Your task to perform on an android device: Do I have any events tomorrow? Image 0: 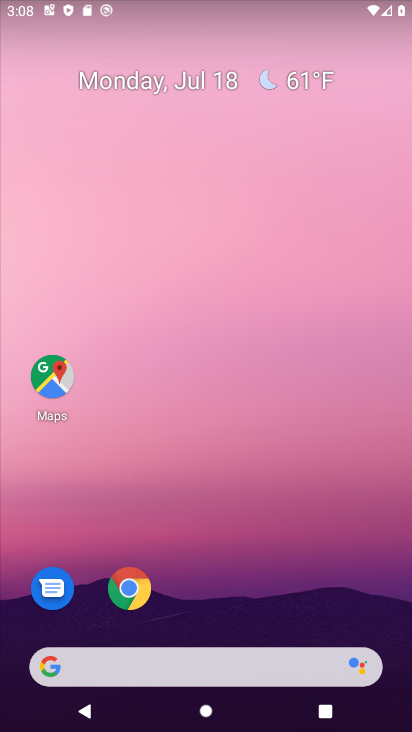
Step 0: drag from (243, 628) to (229, 99)
Your task to perform on an android device: Do I have any events tomorrow? Image 1: 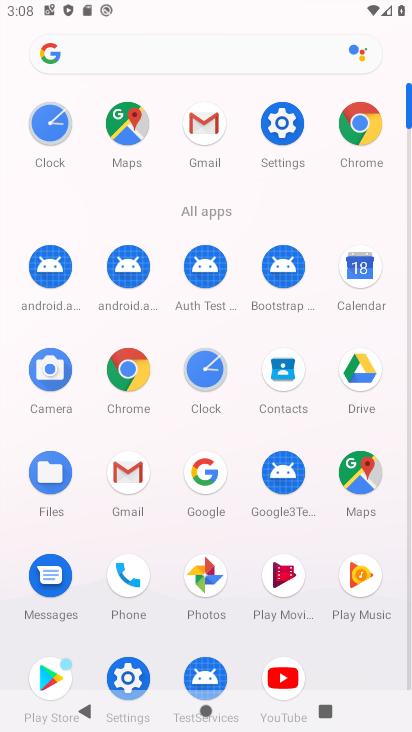
Step 1: click (369, 292)
Your task to perform on an android device: Do I have any events tomorrow? Image 2: 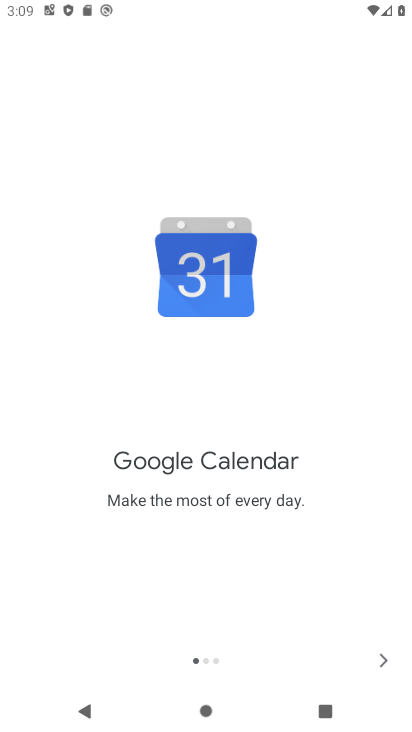
Step 2: click (376, 671)
Your task to perform on an android device: Do I have any events tomorrow? Image 3: 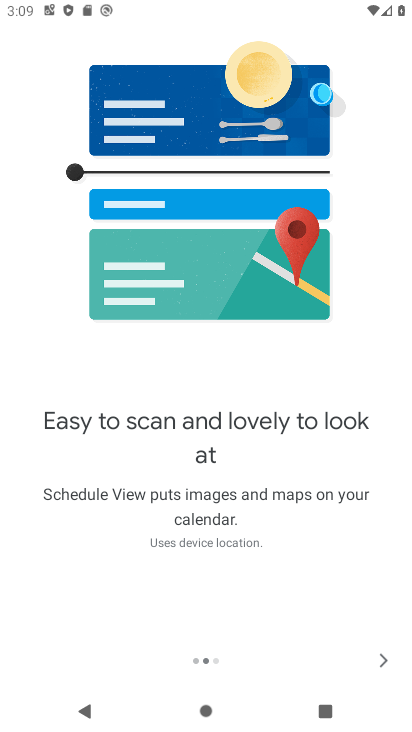
Step 3: click (376, 671)
Your task to perform on an android device: Do I have any events tomorrow? Image 4: 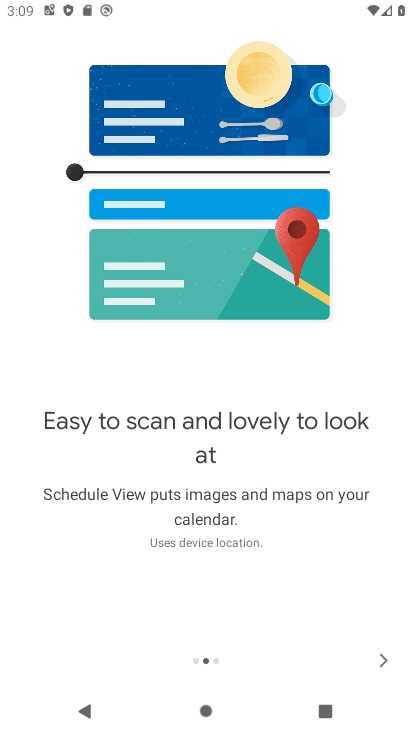
Step 4: click (376, 671)
Your task to perform on an android device: Do I have any events tomorrow? Image 5: 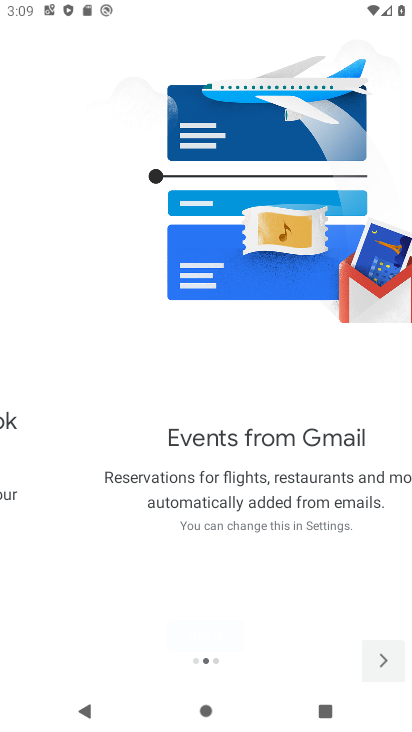
Step 5: click (376, 671)
Your task to perform on an android device: Do I have any events tomorrow? Image 6: 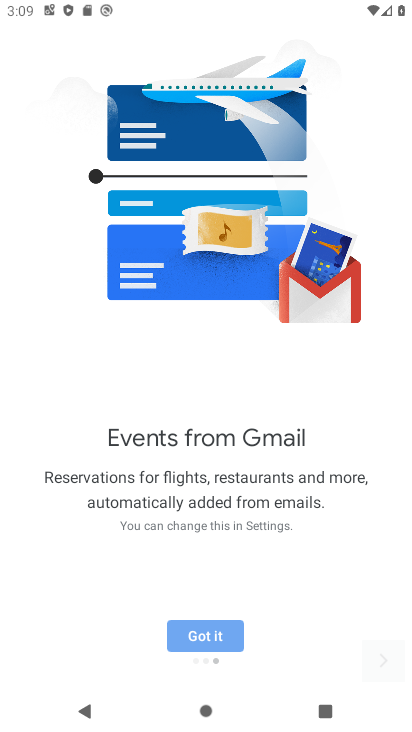
Step 6: click (376, 671)
Your task to perform on an android device: Do I have any events tomorrow? Image 7: 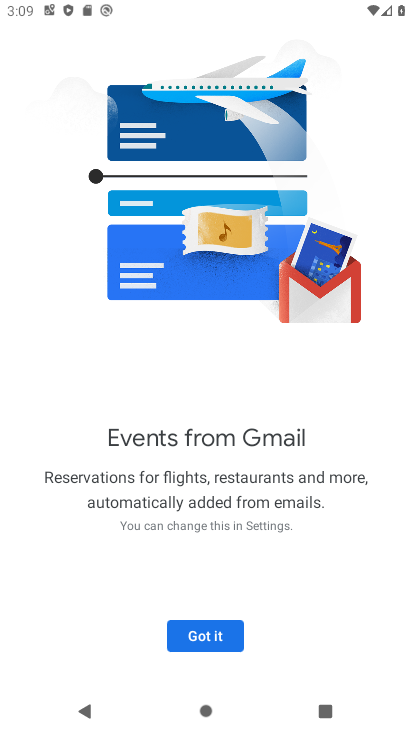
Step 7: click (180, 619)
Your task to perform on an android device: Do I have any events tomorrow? Image 8: 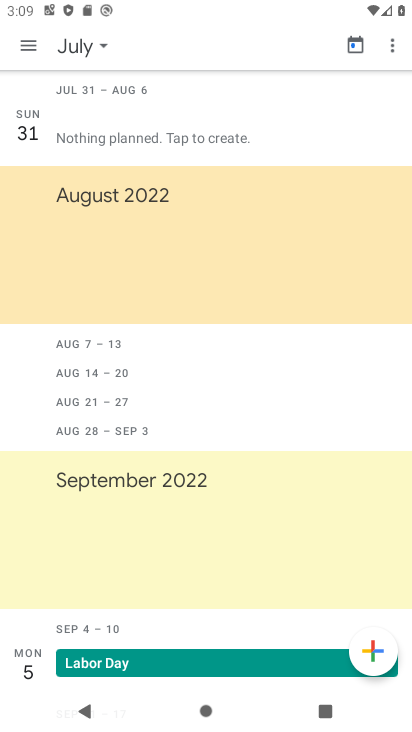
Step 8: task complete